Your task to perform on an android device: What's the weather today? Image 0: 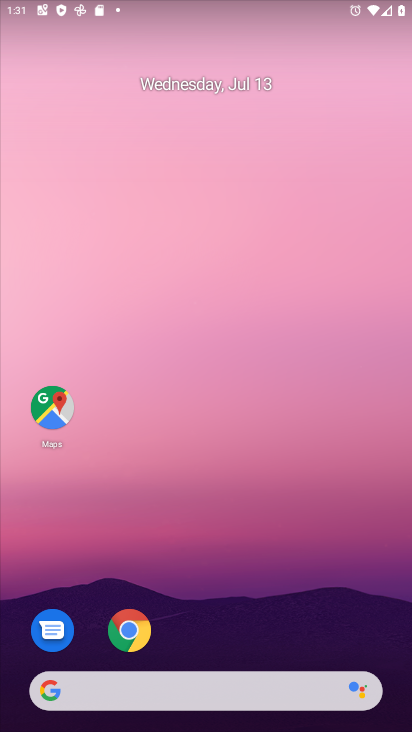
Step 0: drag from (385, 637) to (256, 49)
Your task to perform on an android device: What's the weather today? Image 1: 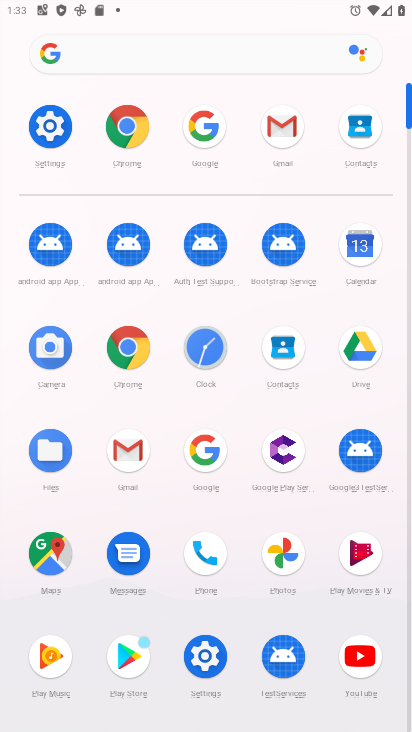
Step 1: click (196, 458)
Your task to perform on an android device: What's the weather today? Image 2: 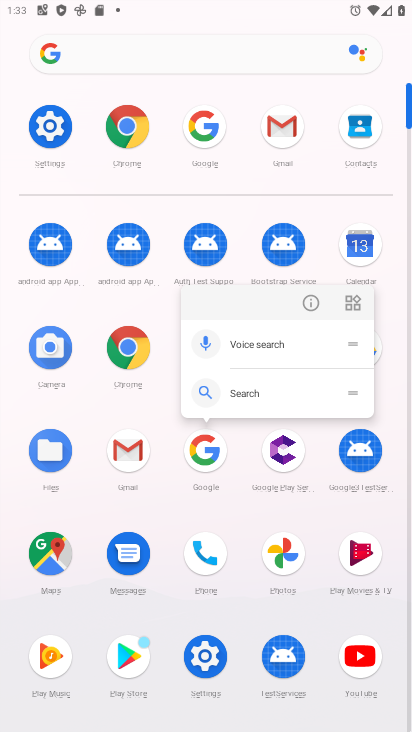
Step 2: click (199, 454)
Your task to perform on an android device: What's the weather today? Image 3: 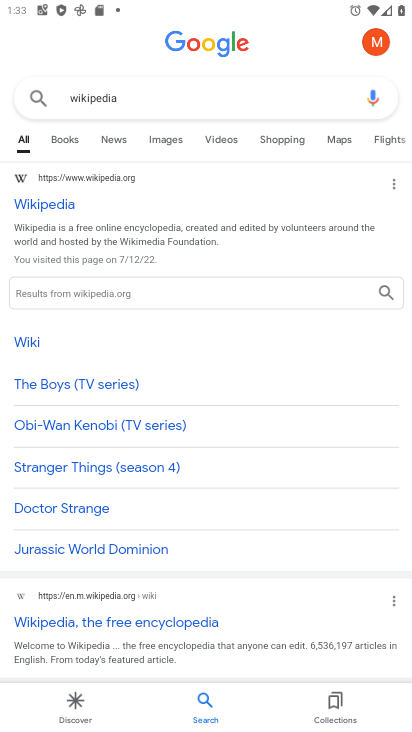
Step 3: press back button
Your task to perform on an android device: What's the weather today? Image 4: 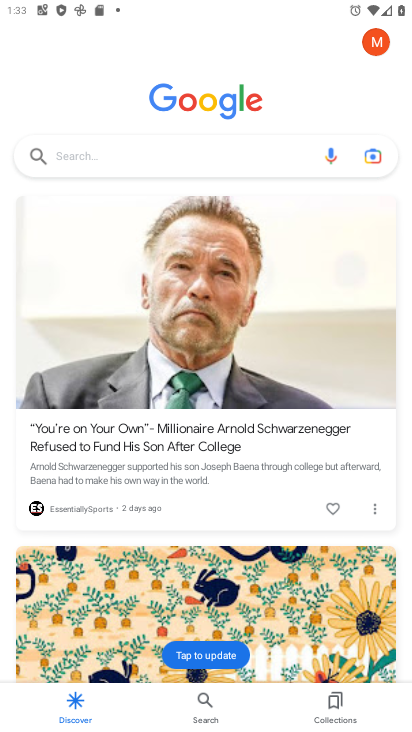
Step 4: click (121, 147)
Your task to perform on an android device: What's the weather today? Image 5: 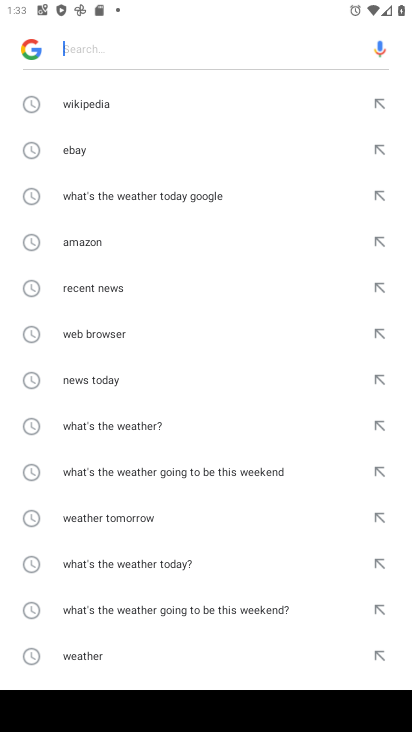
Step 5: type "What's the weather today?"
Your task to perform on an android device: What's the weather today? Image 6: 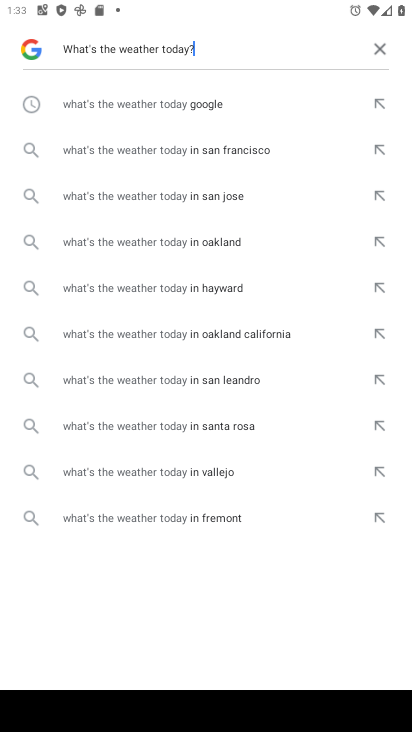
Step 6: click (156, 99)
Your task to perform on an android device: What's the weather today? Image 7: 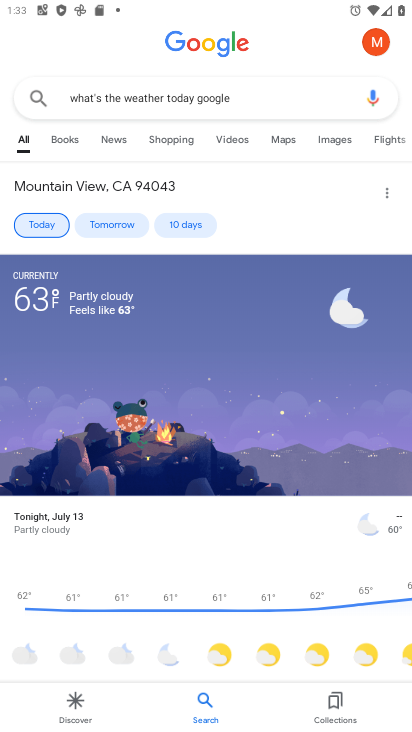
Step 7: task complete